Your task to perform on an android device: Open Chrome and go to the settings page Image 0: 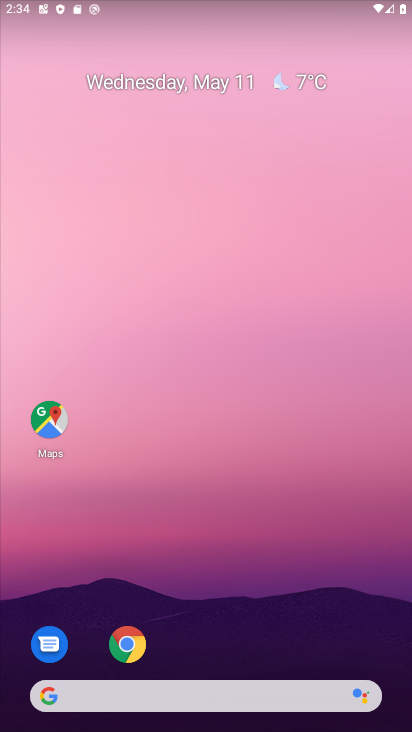
Step 0: click (129, 645)
Your task to perform on an android device: Open Chrome and go to the settings page Image 1: 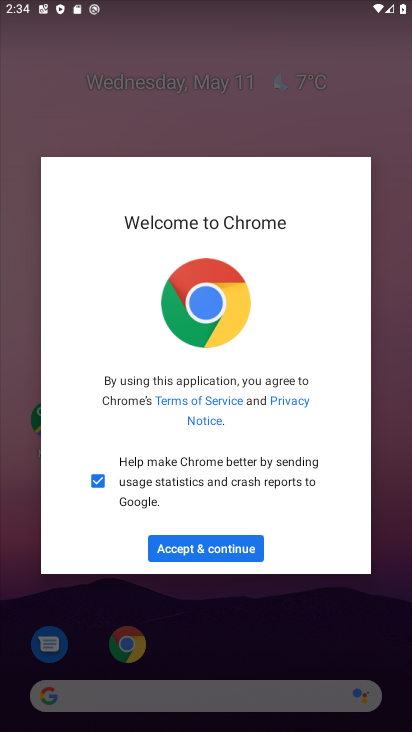
Step 1: click (180, 544)
Your task to perform on an android device: Open Chrome and go to the settings page Image 2: 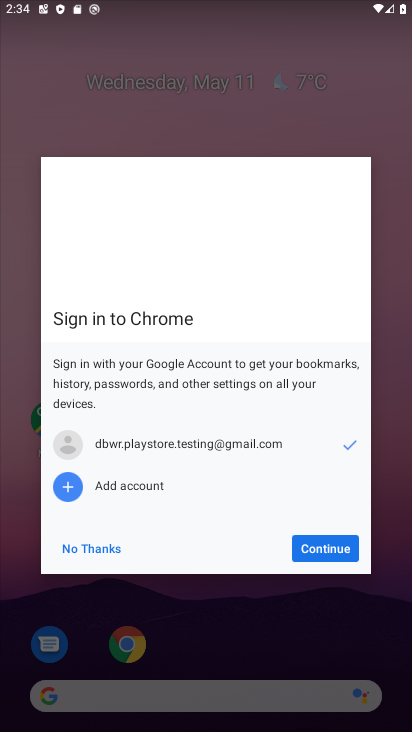
Step 2: click (301, 544)
Your task to perform on an android device: Open Chrome and go to the settings page Image 3: 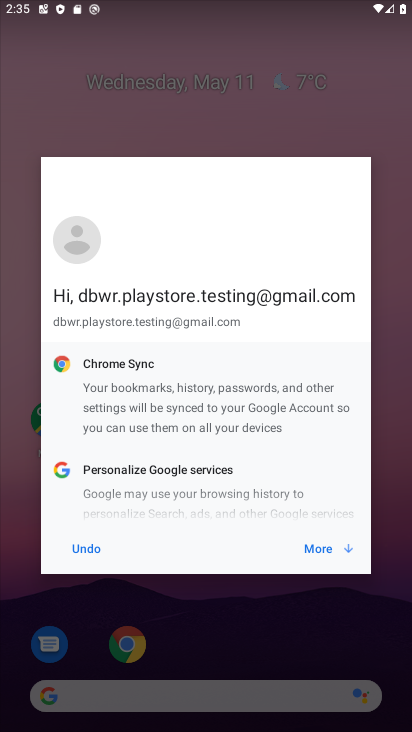
Step 3: click (301, 544)
Your task to perform on an android device: Open Chrome and go to the settings page Image 4: 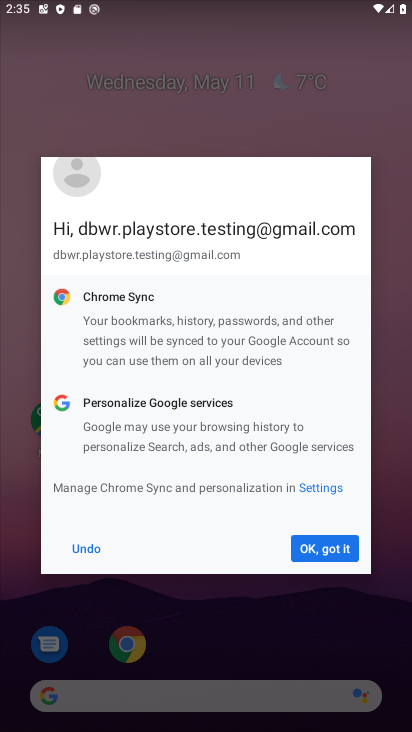
Step 4: click (301, 544)
Your task to perform on an android device: Open Chrome and go to the settings page Image 5: 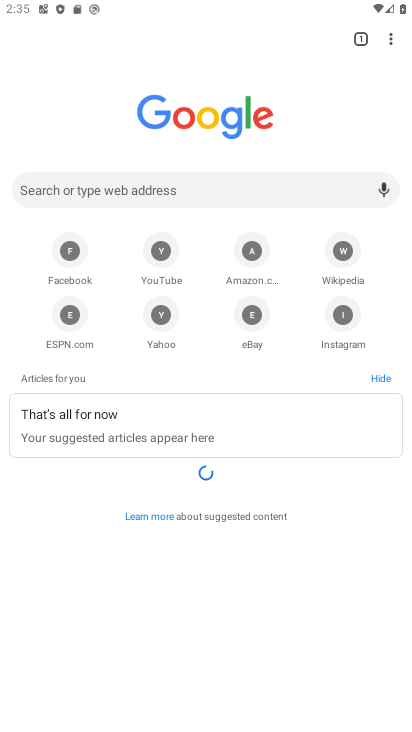
Step 5: click (392, 41)
Your task to perform on an android device: Open Chrome and go to the settings page Image 6: 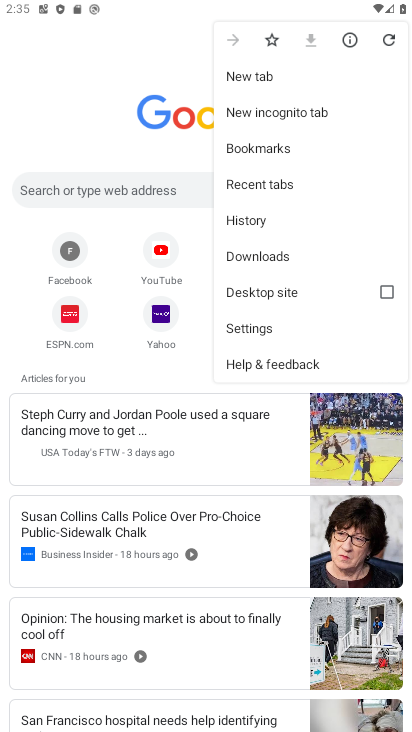
Step 6: click (253, 332)
Your task to perform on an android device: Open Chrome and go to the settings page Image 7: 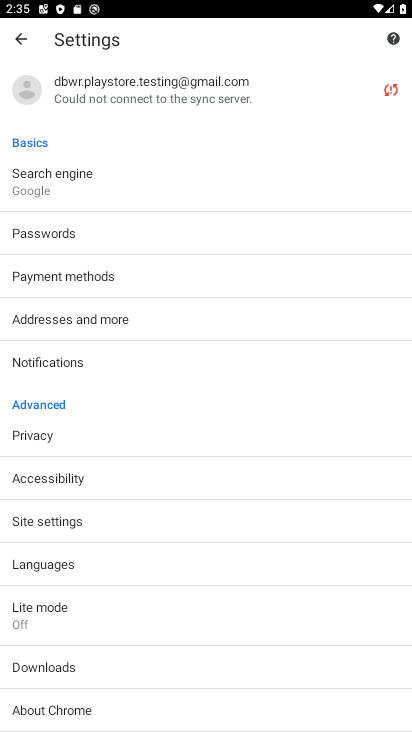
Step 7: task complete